Your task to perform on an android device: Open calendar and show me the second week of next month Image 0: 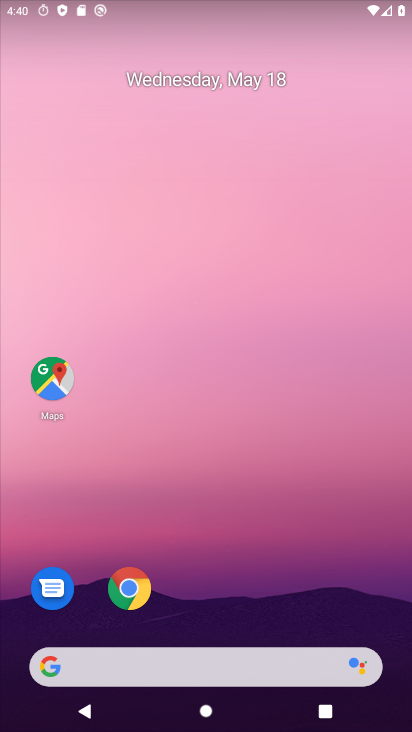
Step 0: drag from (244, 549) to (217, 43)
Your task to perform on an android device: Open calendar and show me the second week of next month Image 1: 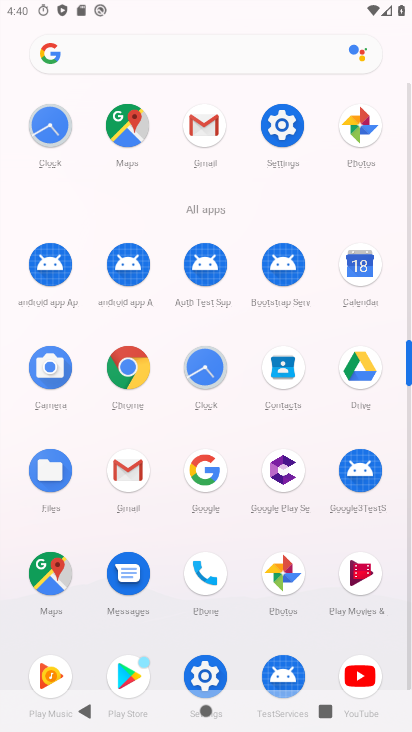
Step 1: click (360, 264)
Your task to perform on an android device: Open calendar and show me the second week of next month Image 2: 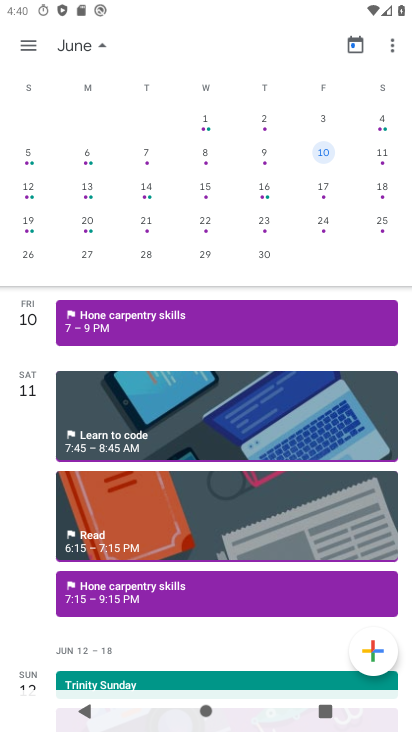
Step 2: click (323, 151)
Your task to perform on an android device: Open calendar and show me the second week of next month Image 3: 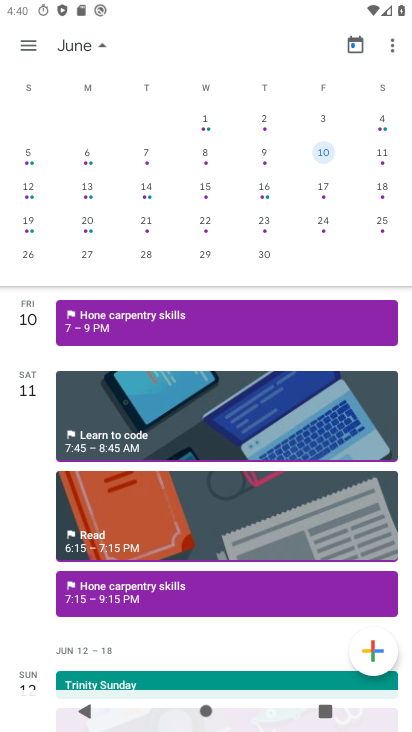
Step 3: task complete